Your task to perform on an android device: find photos in the google photos app Image 0: 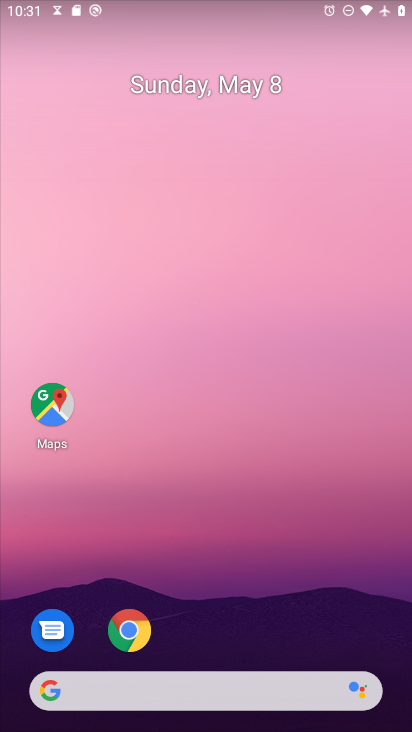
Step 0: drag from (214, 692) to (410, 205)
Your task to perform on an android device: find photos in the google photos app Image 1: 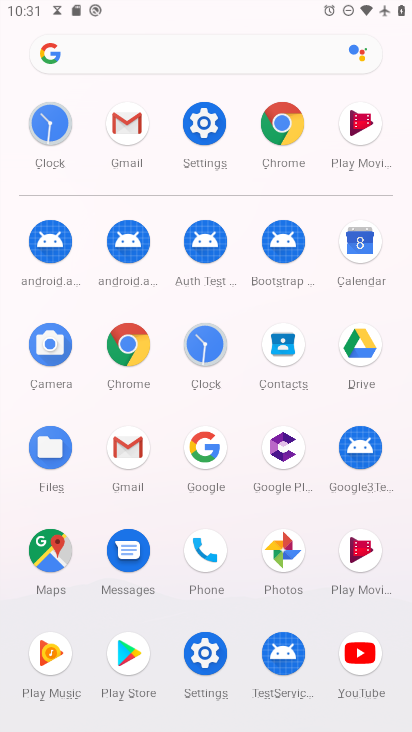
Step 1: click (283, 556)
Your task to perform on an android device: find photos in the google photos app Image 2: 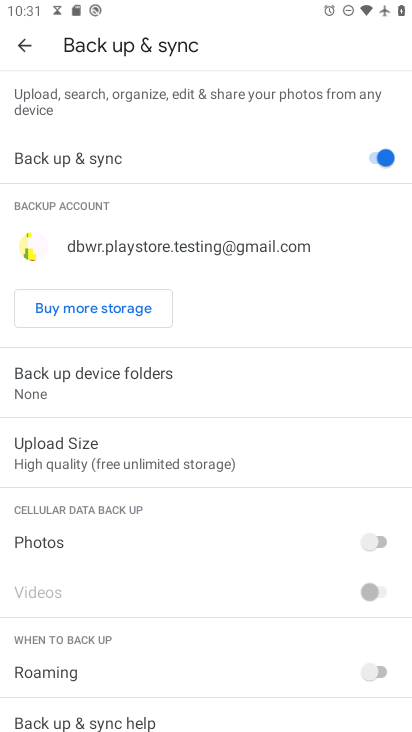
Step 2: click (36, 46)
Your task to perform on an android device: find photos in the google photos app Image 3: 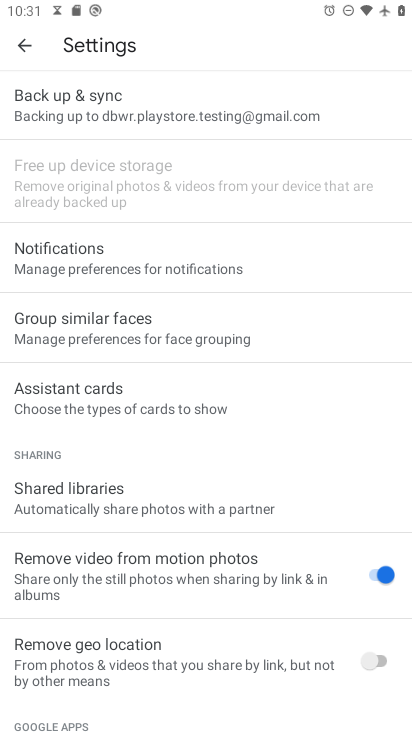
Step 3: click (25, 48)
Your task to perform on an android device: find photos in the google photos app Image 4: 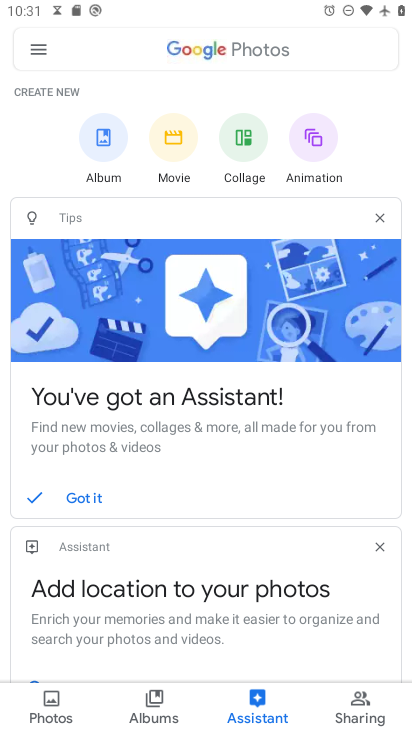
Step 4: click (43, 713)
Your task to perform on an android device: find photos in the google photos app Image 5: 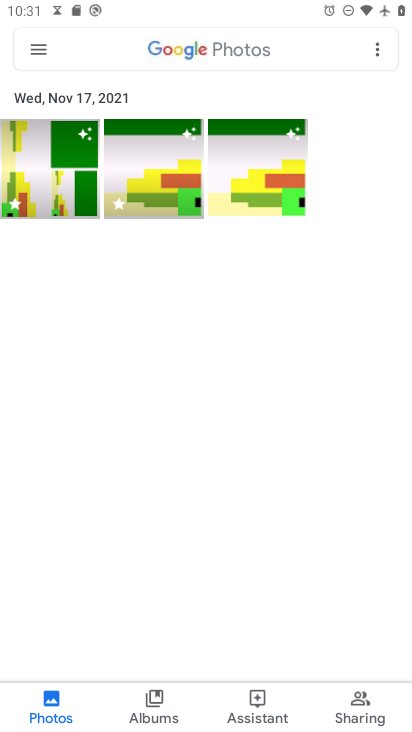
Step 5: task complete